Your task to perform on an android device: Open Google Image 0: 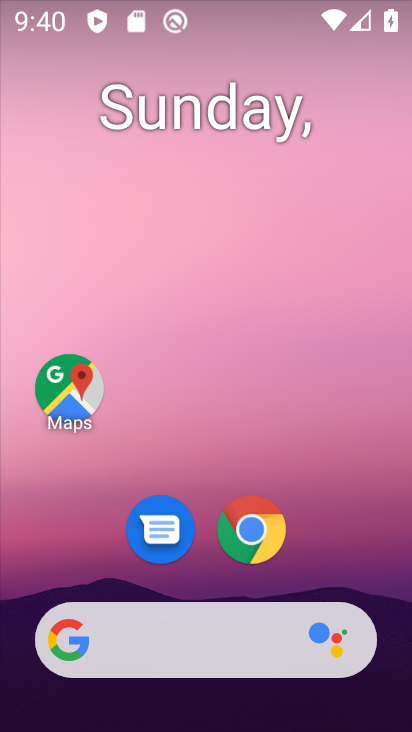
Step 0: click (192, 637)
Your task to perform on an android device: Open Google Image 1: 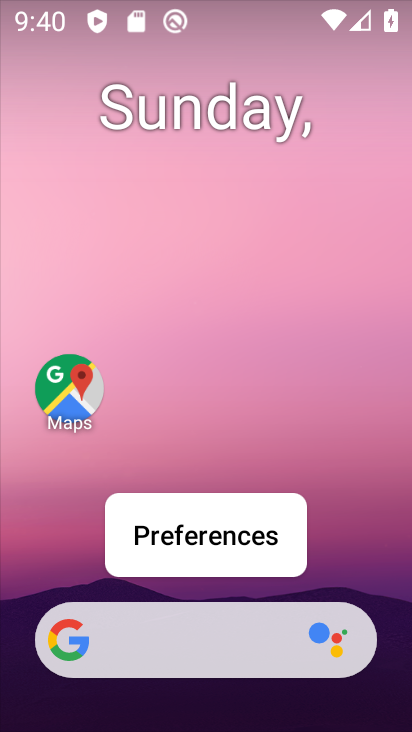
Step 1: click (61, 650)
Your task to perform on an android device: Open Google Image 2: 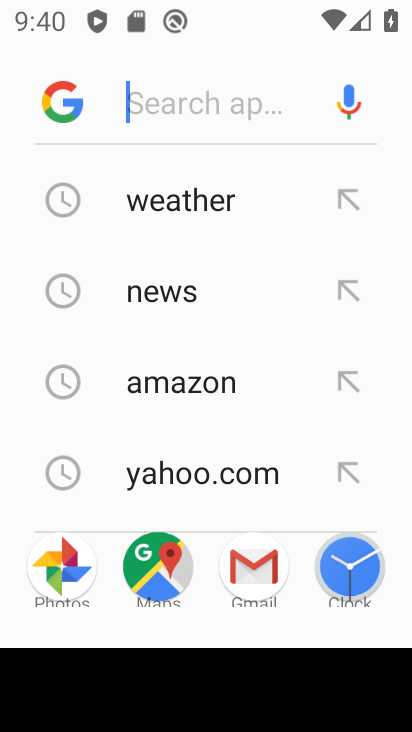
Step 2: click (57, 115)
Your task to perform on an android device: Open Google Image 3: 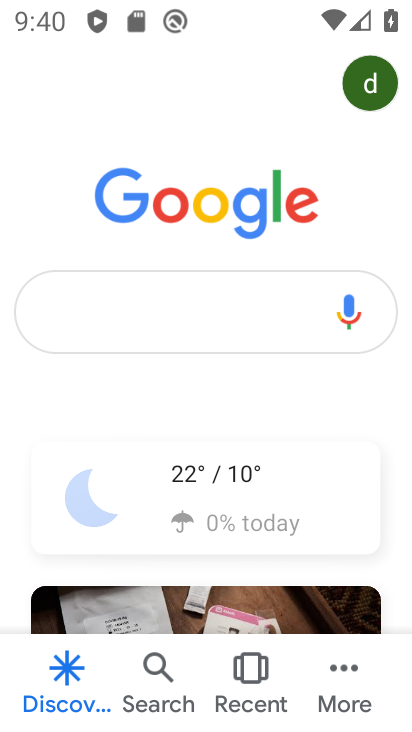
Step 3: task complete